Your task to perform on an android device: open sync settings in chrome Image 0: 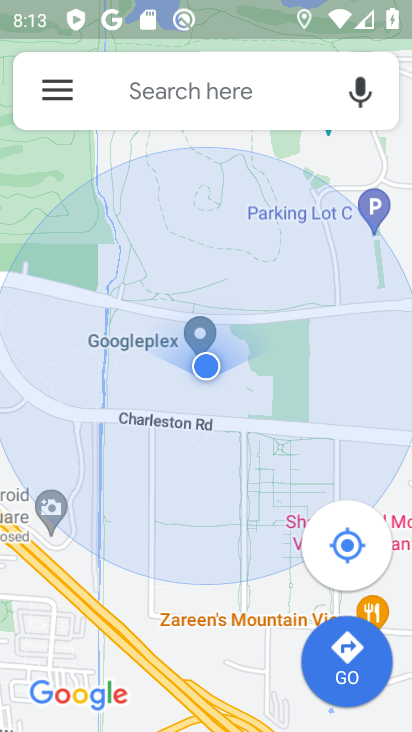
Step 0: press back button
Your task to perform on an android device: open sync settings in chrome Image 1: 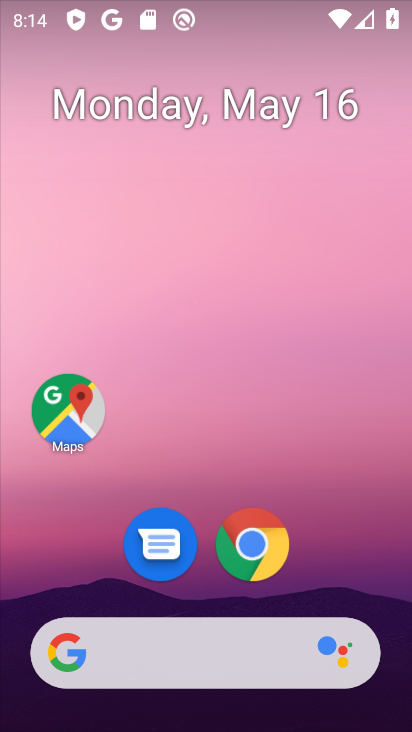
Step 1: click (273, 526)
Your task to perform on an android device: open sync settings in chrome Image 2: 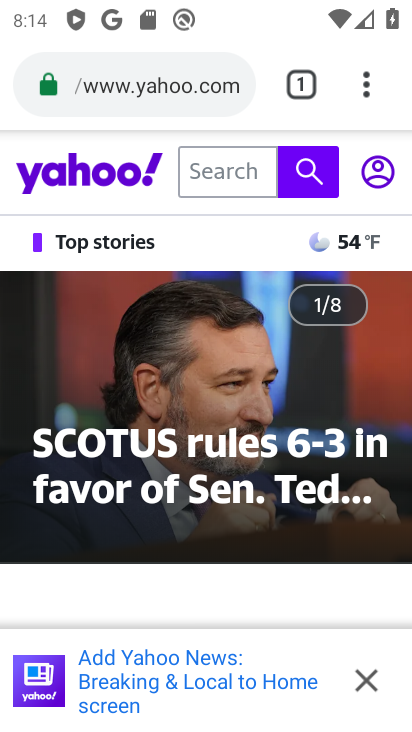
Step 2: click (373, 91)
Your task to perform on an android device: open sync settings in chrome Image 3: 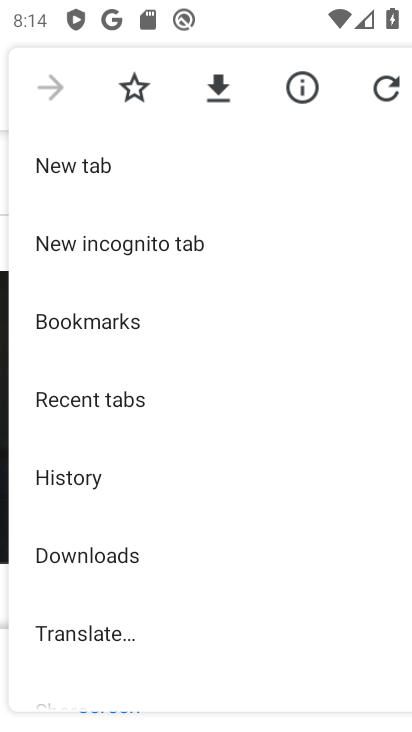
Step 3: drag from (226, 661) to (229, 254)
Your task to perform on an android device: open sync settings in chrome Image 4: 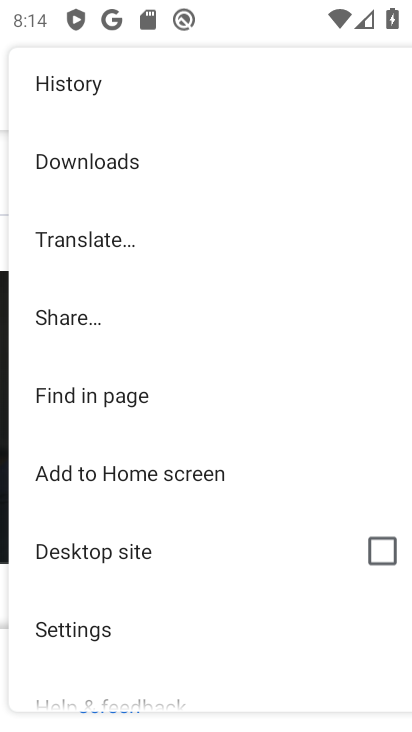
Step 4: drag from (237, 548) to (217, 187)
Your task to perform on an android device: open sync settings in chrome Image 5: 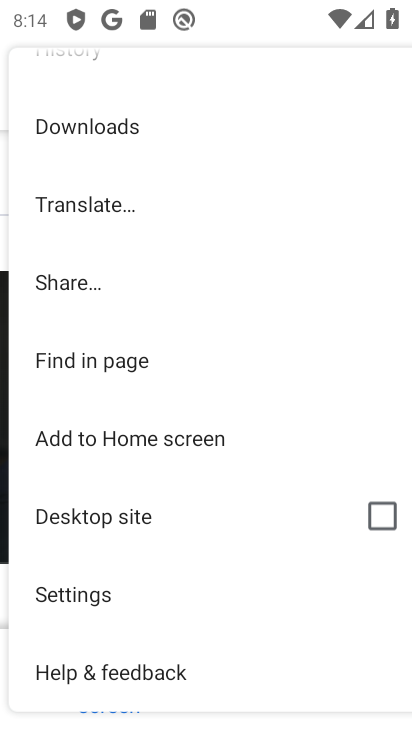
Step 5: click (220, 593)
Your task to perform on an android device: open sync settings in chrome Image 6: 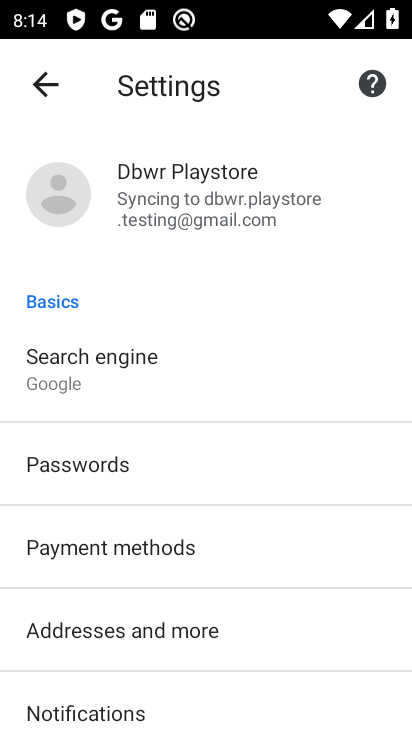
Step 6: click (219, 190)
Your task to perform on an android device: open sync settings in chrome Image 7: 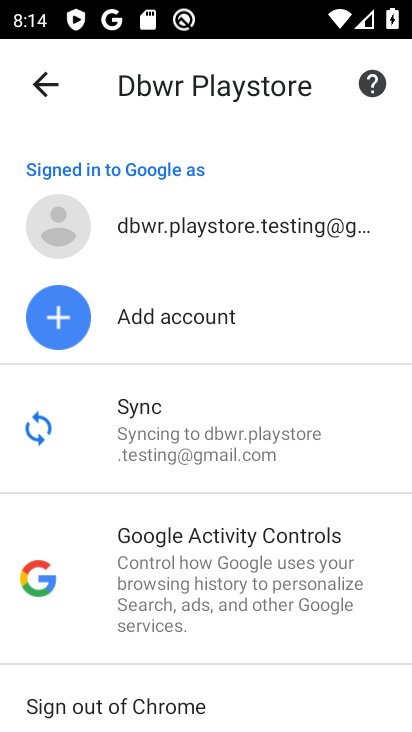
Step 7: click (211, 466)
Your task to perform on an android device: open sync settings in chrome Image 8: 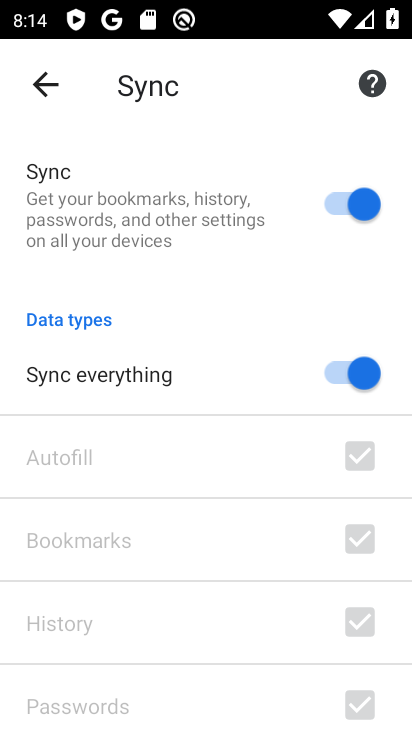
Step 8: task complete